Your task to perform on an android device: toggle airplane mode Image 0: 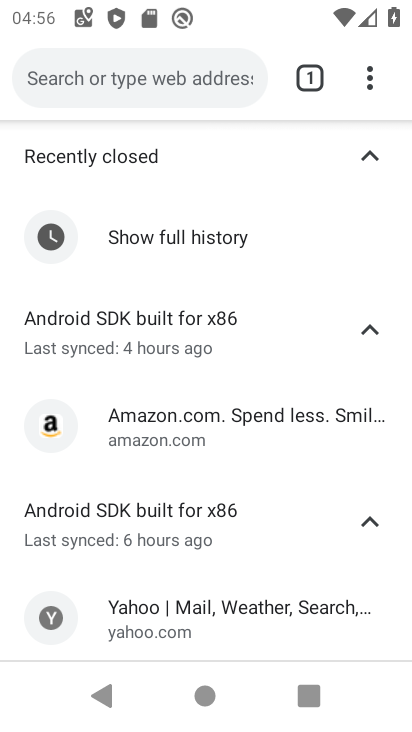
Step 0: press home button
Your task to perform on an android device: toggle airplane mode Image 1: 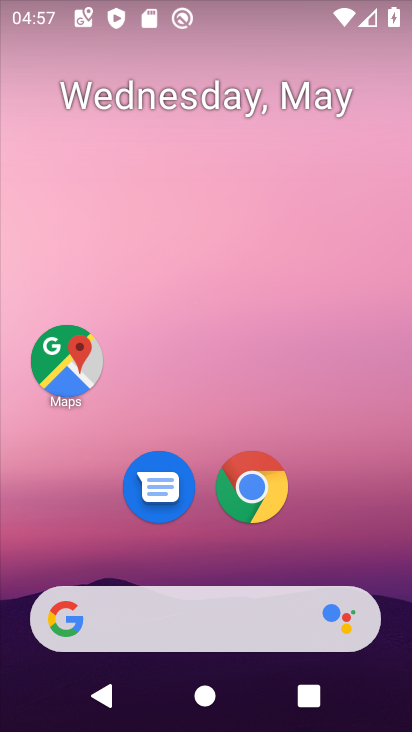
Step 1: drag from (322, 528) to (319, 4)
Your task to perform on an android device: toggle airplane mode Image 2: 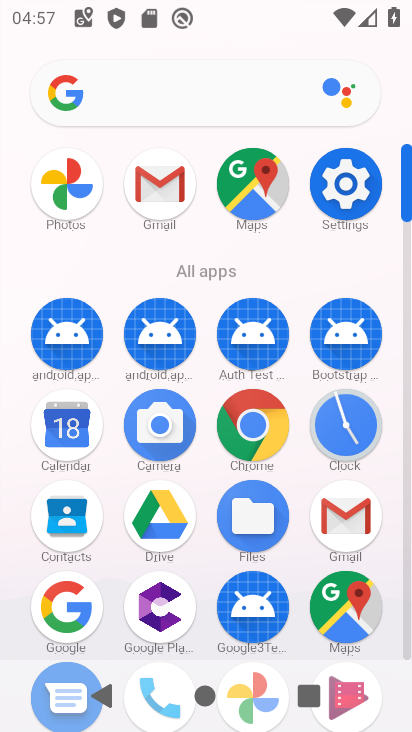
Step 2: click (347, 213)
Your task to perform on an android device: toggle airplane mode Image 3: 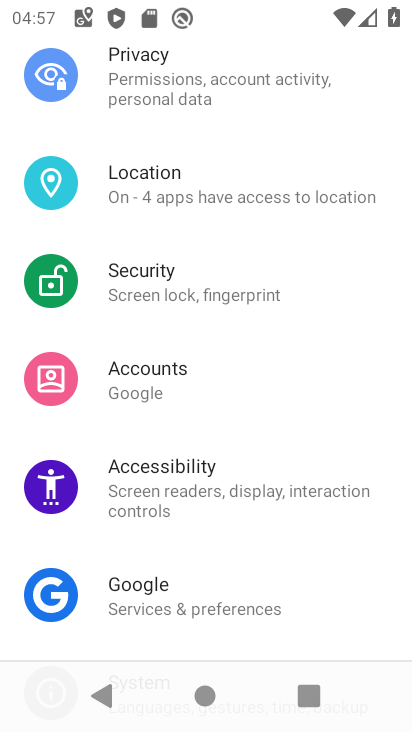
Step 3: drag from (152, 112) to (167, 560)
Your task to perform on an android device: toggle airplane mode Image 4: 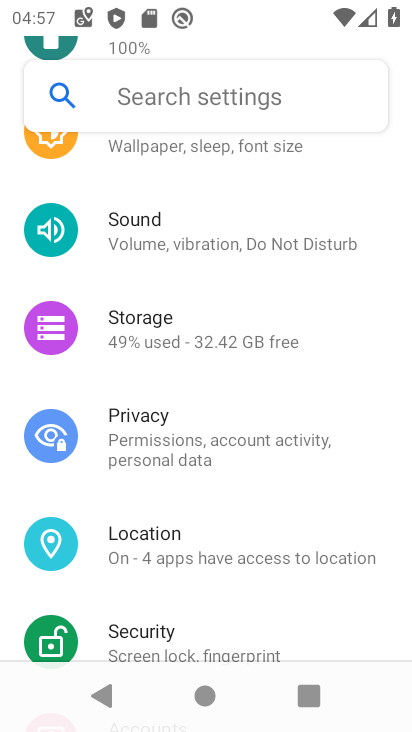
Step 4: drag from (200, 305) to (200, 671)
Your task to perform on an android device: toggle airplane mode Image 5: 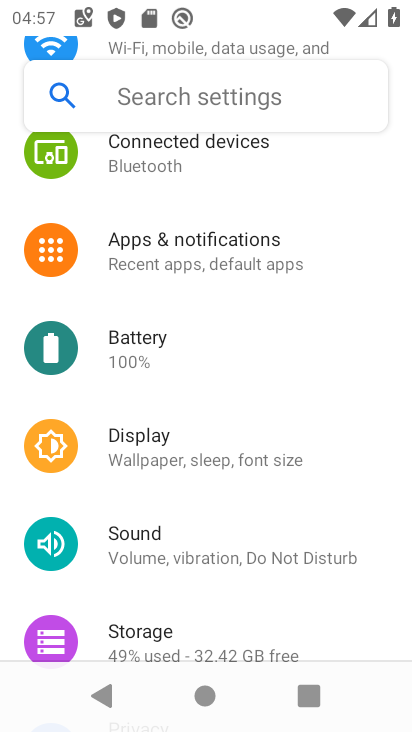
Step 5: drag from (188, 227) to (209, 560)
Your task to perform on an android device: toggle airplane mode Image 6: 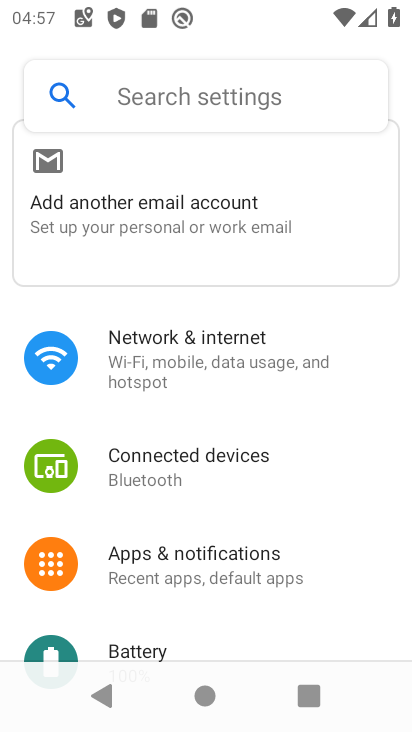
Step 6: click (219, 270)
Your task to perform on an android device: toggle airplane mode Image 7: 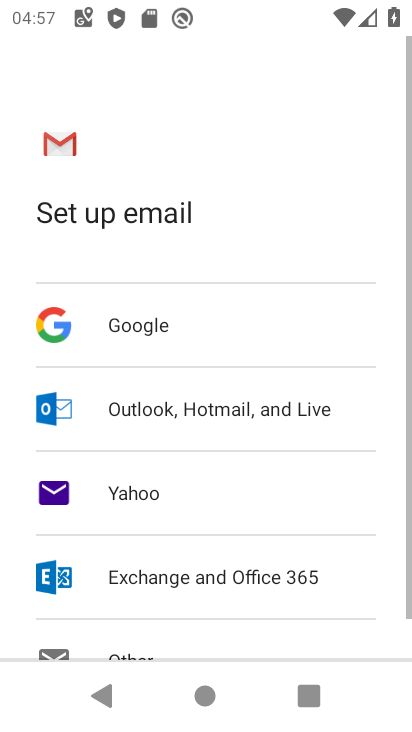
Step 7: click (115, 670)
Your task to perform on an android device: toggle airplane mode Image 8: 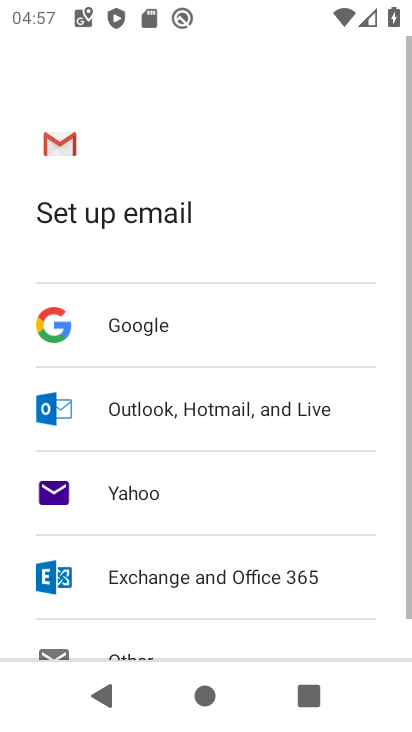
Step 8: click (115, 670)
Your task to perform on an android device: toggle airplane mode Image 9: 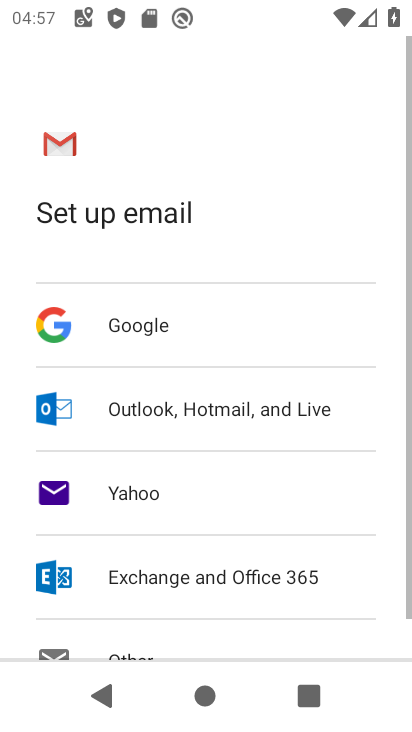
Step 9: click (115, 670)
Your task to perform on an android device: toggle airplane mode Image 10: 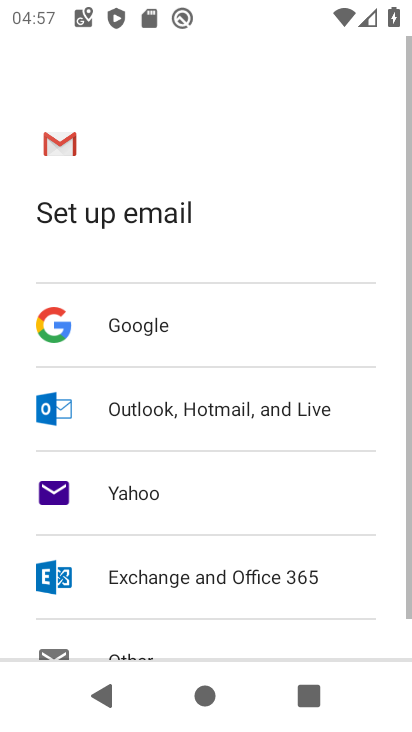
Step 10: click (111, 698)
Your task to perform on an android device: toggle airplane mode Image 11: 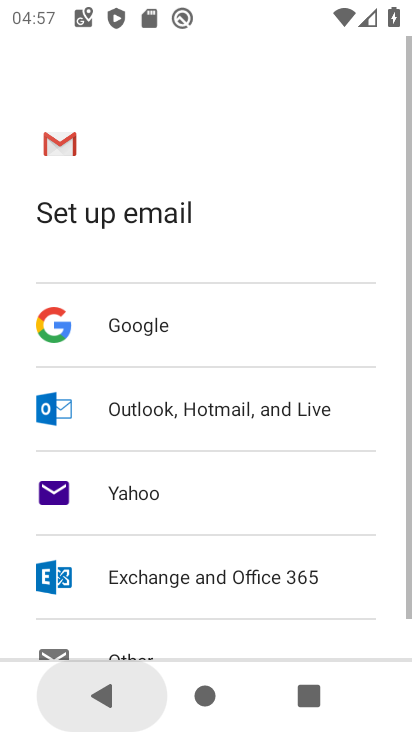
Step 11: click (111, 698)
Your task to perform on an android device: toggle airplane mode Image 12: 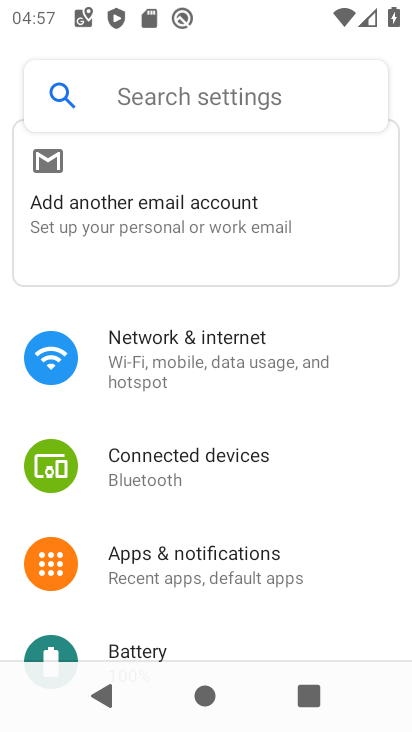
Step 12: click (188, 353)
Your task to perform on an android device: toggle airplane mode Image 13: 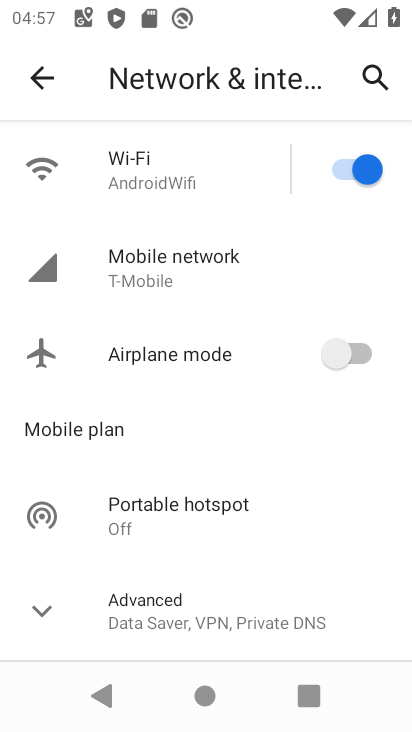
Step 13: click (332, 347)
Your task to perform on an android device: toggle airplane mode Image 14: 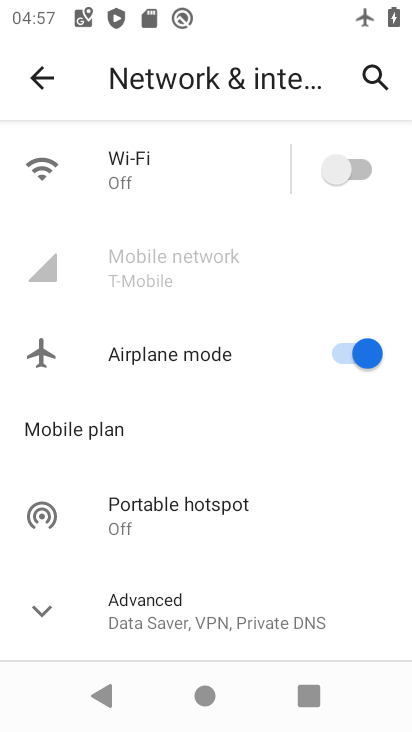
Step 14: task complete